Your task to perform on an android device: Go to battery settings Image 0: 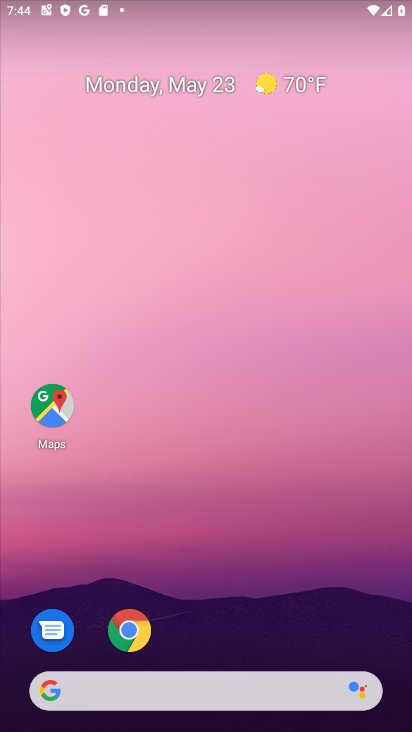
Step 0: drag from (240, 607) to (162, 160)
Your task to perform on an android device: Go to battery settings Image 1: 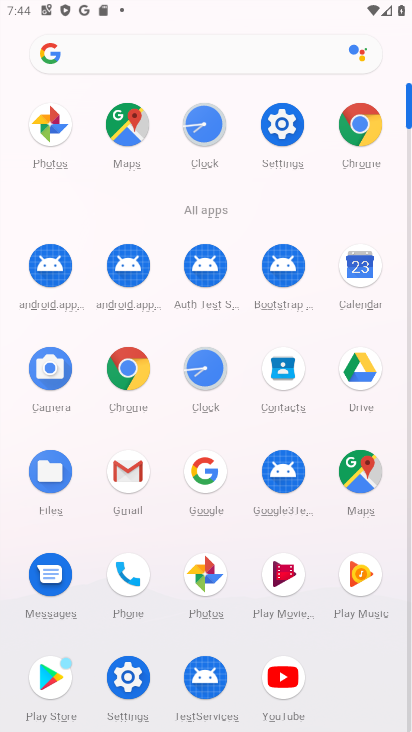
Step 1: click (279, 119)
Your task to perform on an android device: Go to battery settings Image 2: 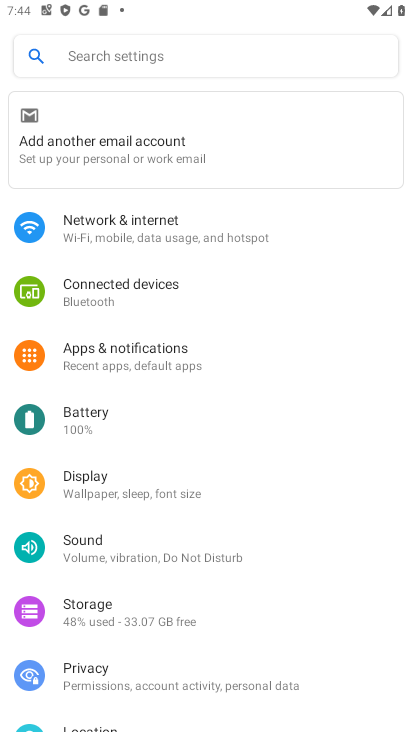
Step 2: drag from (222, 571) to (217, 205)
Your task to perform on an android device: Go to battery settings Image 3: 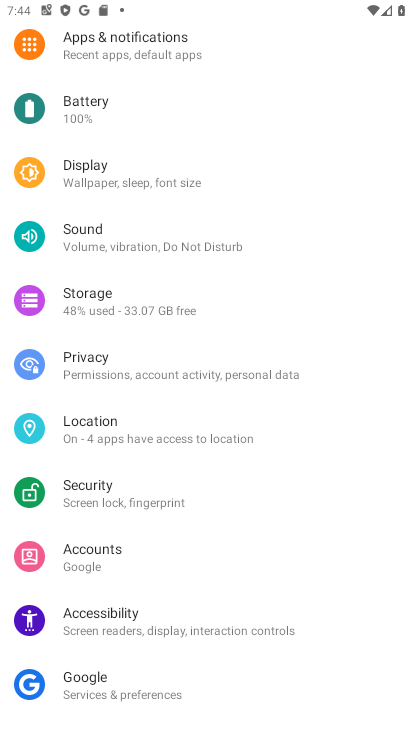
Step 3: click (75, 93)
Your task to perform on an android device: Go to battery settings Image 4: 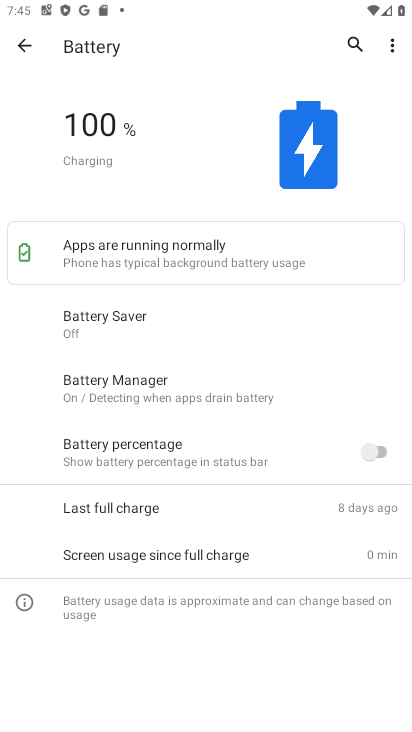
Step 4: task complete